Your task to perform on an android device: turn off translation in the chrome app Image 0: 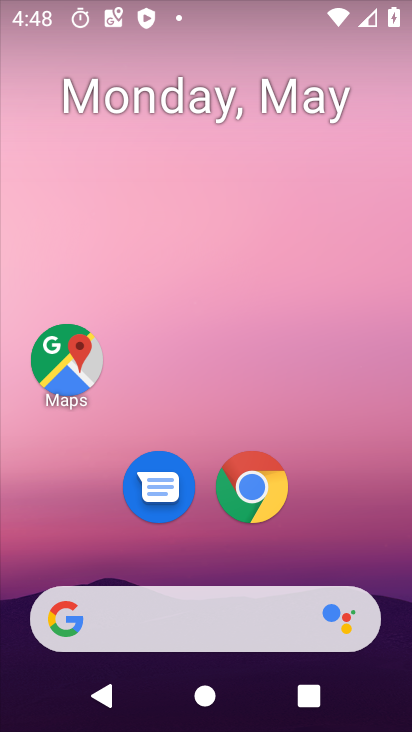
Step 0: click (260, 485)
Your task to perform on an android device: turn off translation in the chrome app Image 1: 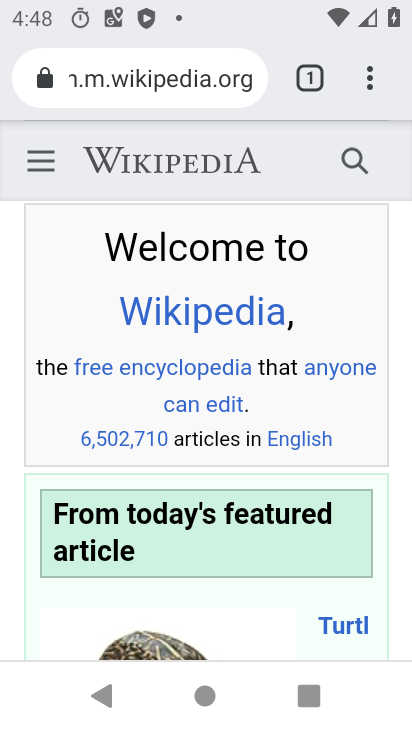
Step 1: click (377, 77)
Your task to perform on an android device: turn off translation in the chrome app Image 2: 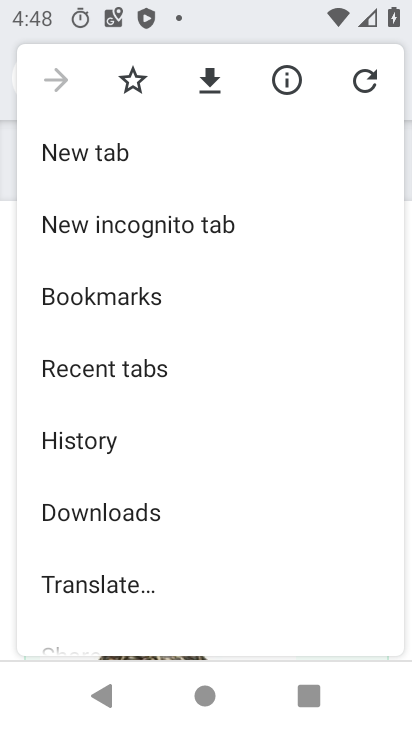
Step 2: drag from (108, 614) to (87, 282)
Your task to perform on an android device: turn off translation in the chrome app Image 3: 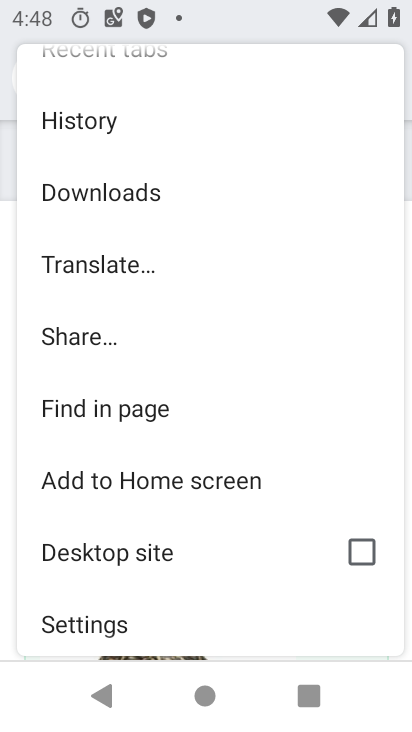
Step 3: click (112, 622)
Your task to perform on an android device: turn off translation in the chrome app Image 4: 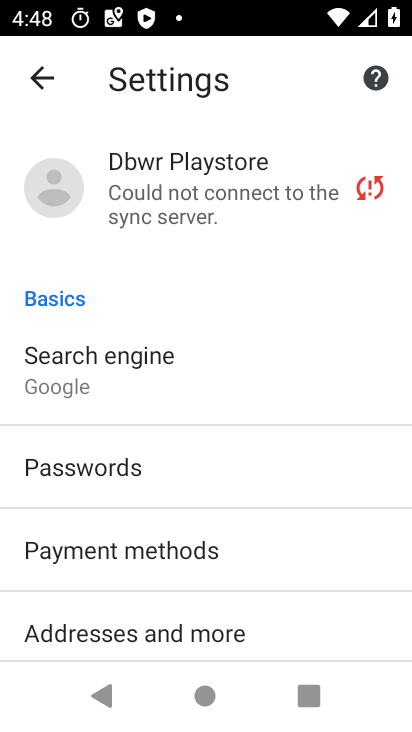
Step 4: drag from (116, 635) to (116, 304)
Your task to perform on an android device: turn off translation in the chrome app Image 5: 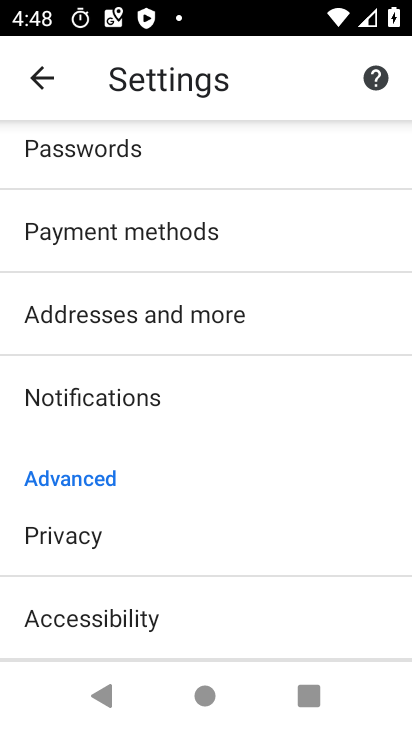
Step 5: drag from (109, 630) to (131, 303)
Your task to perform on an android device: turn off translation in the chrome app Image 6: 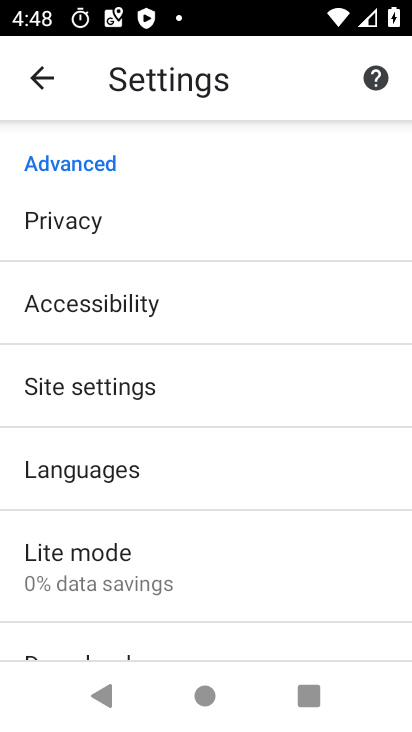
Step 6: click (108, 462)
Your task to perform on an android device: turn off translation in the chrome app Image 7: 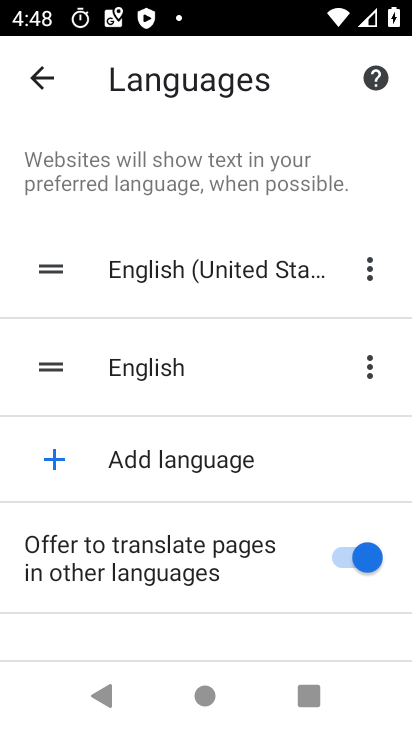
Step 7: click (347, 555)
Your task to perform on an android device: turn off translation in the chrome app Image 8: 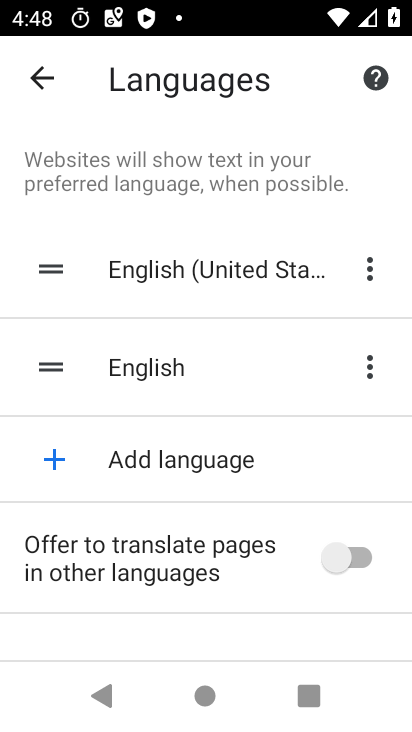
Step 8: task complete